Your task to perform on an android device: turn off picture-in-picture Image 0: 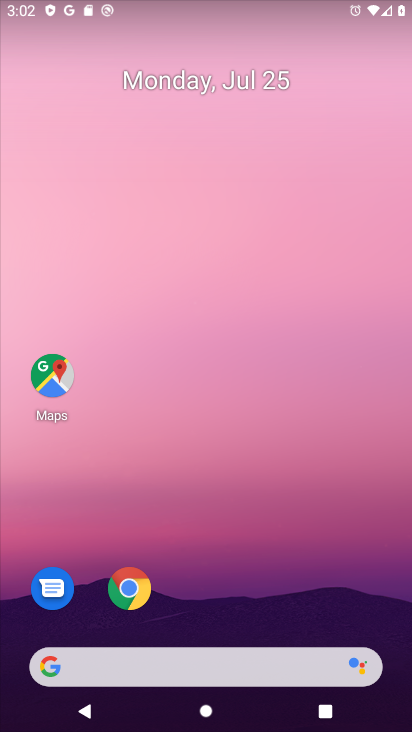
Step 0: press home button
Your task to perform on an android device: turn off picture-in-picture Image 1: 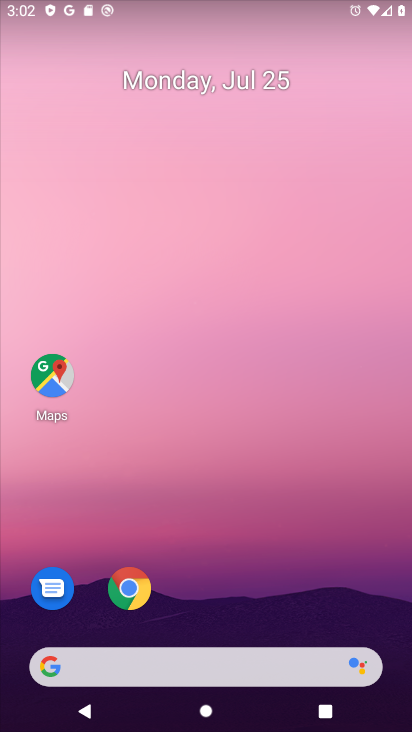
Step 1: click (117, 586)
Your task to perform on an android device: turn off picture-in-picture Image 2: 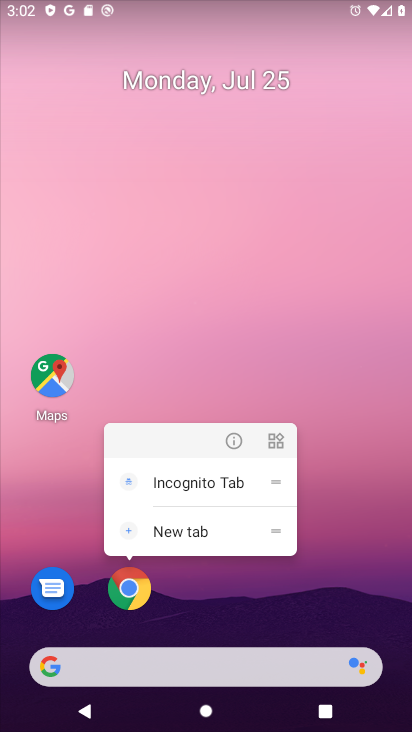
Step 2: click (235, 436)
Your task to perform on an android device: turn off picture-in-picture Image 3: 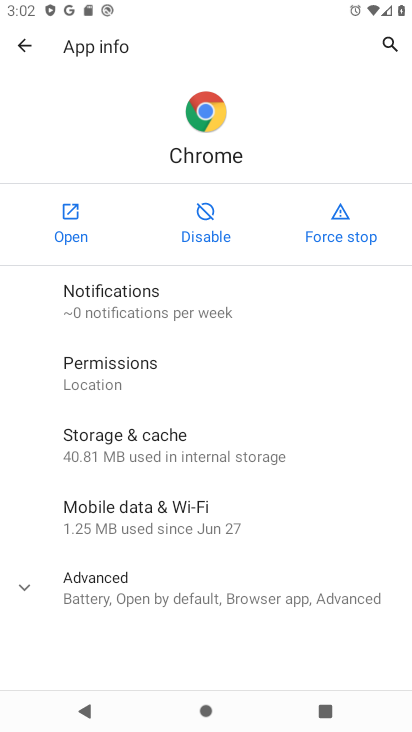
Step 3: click (22, 589)
Your task to perform on an android device: turn off picture-in-picture Image 4: 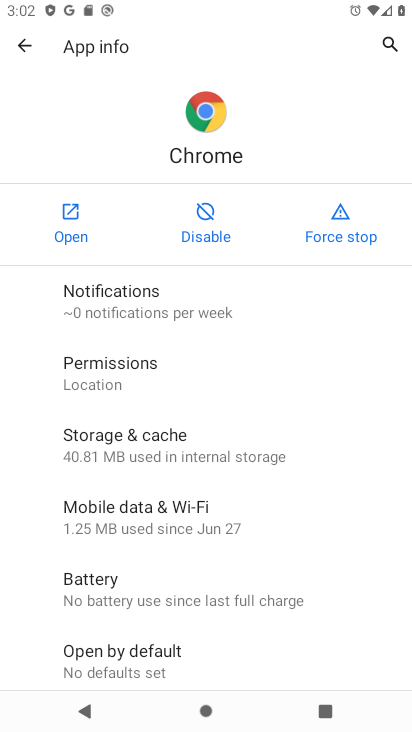
Step 4: drag from (224, 666) to (223, 233)
Your task to perform on an android device: turn off picture-in-picture Image 5: 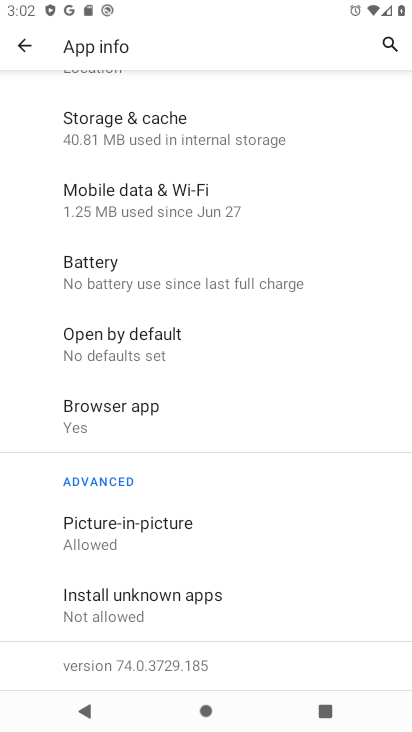
Step 5: click (114, 535)
Your task to perform on an android device: turn off picture-in-picture Image 6: 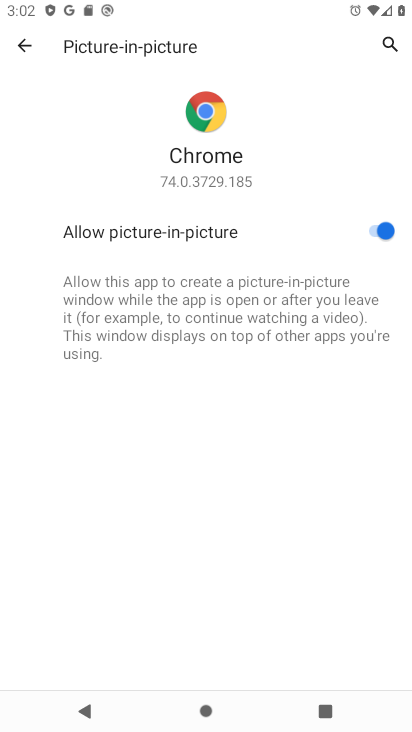
Step 6: task complete